Your task to perform on an android device: Open battery settings Image 0: 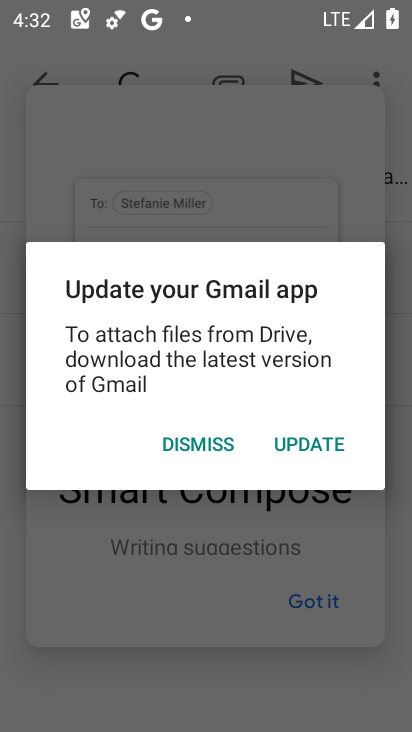
Step 0: press home button
Your task to perform on an android device: Open battery settings Image 1: 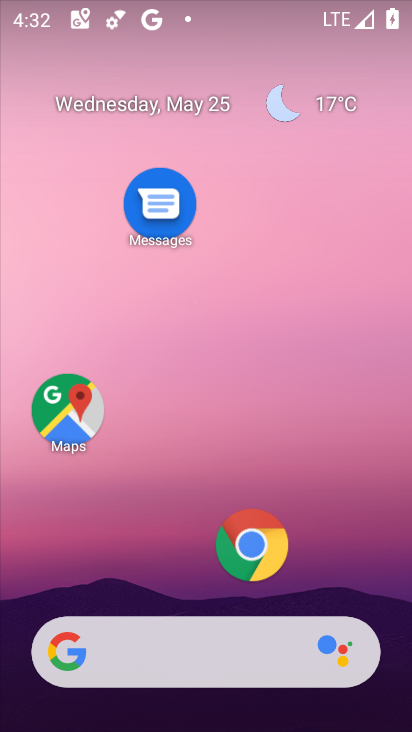
Step 1: drag from (358, 505) to (296, 15)
Your task to perform on an android device: Open battery settings Image 2: 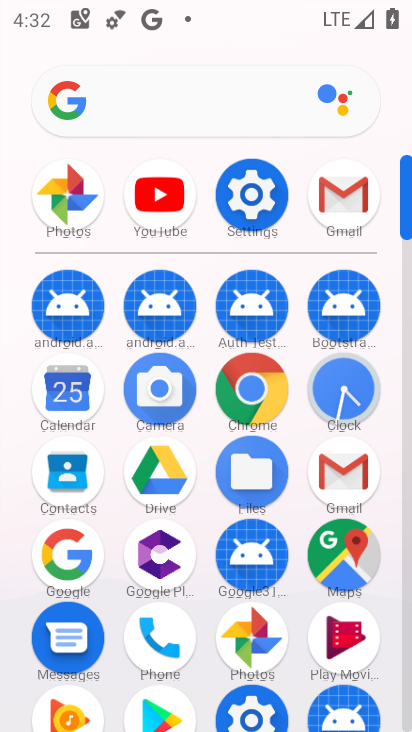
Step 2: click (259, 173)
Your task to perform on an android device: Open battery settings Image 3: 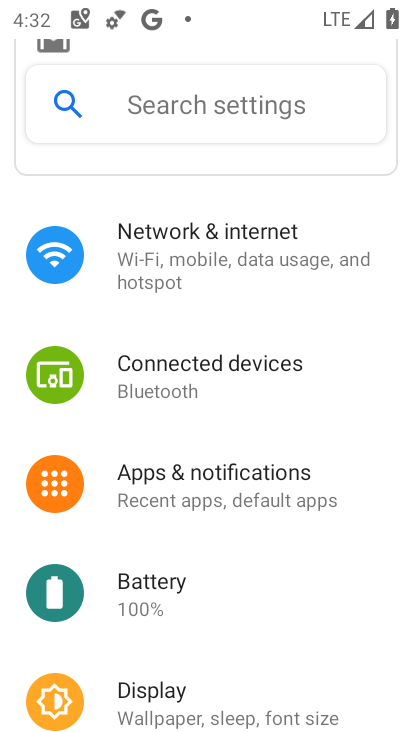
Step 3: click (168, 586)
Your task to perform on an android device: Open battery settings Image 4: 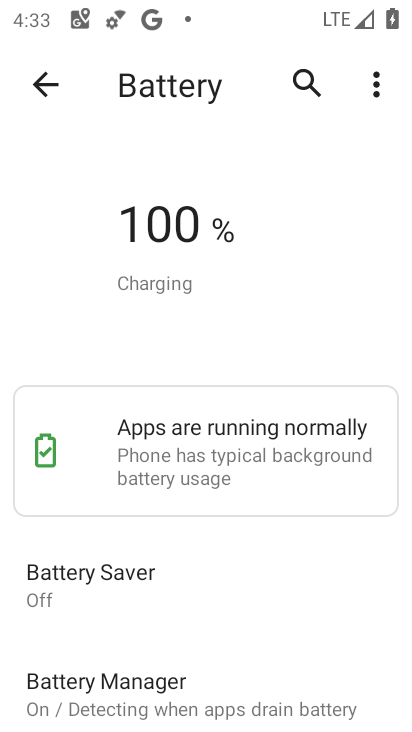
Step 4: task complete